Your task to perform on an android device: turn off data saver in the chrome app Image 0: 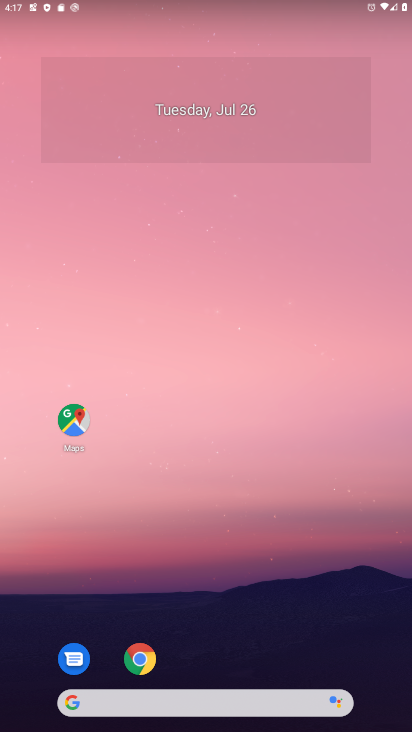
Step 0: press home button
Your task to perform on an android device: turn off data saver in the chrome app Image 1: 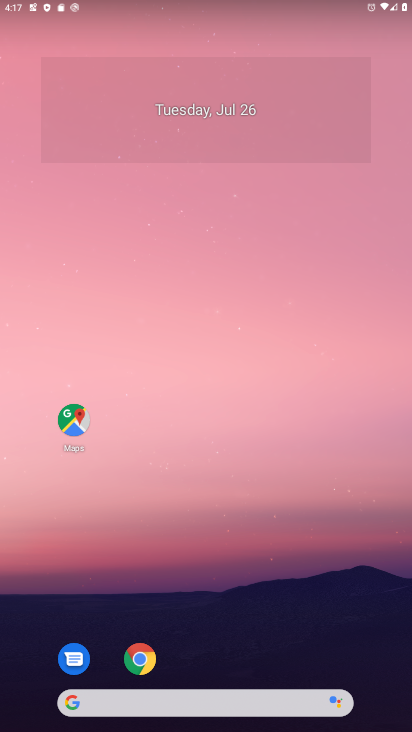
Step 1: drag from (251, 673) to (264, 356)
Your task to perform on an android device: turn off data saver in the chrome app Image 2: 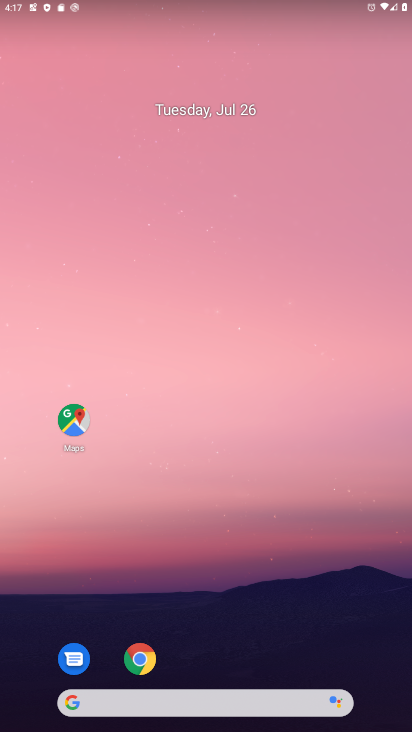
Step 2: drag from (277, 586) to (280, 156)
Your task to perform on an android device: turn off data saver in the chrome app Image 3: 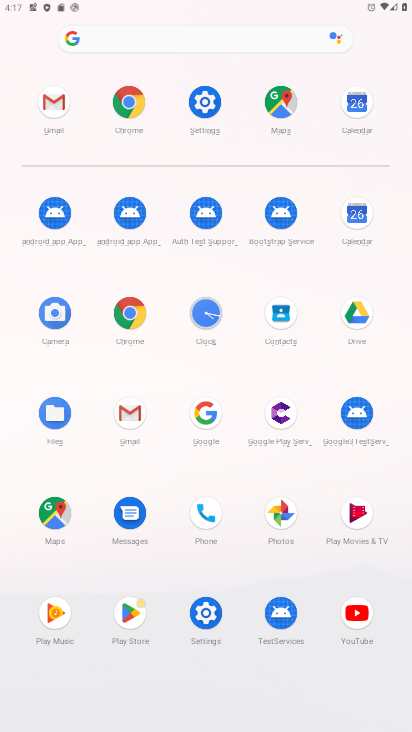
Step 3: click (131, 97)
Your task to perform on an android device: turn off data saver in the chrome app Image 4: 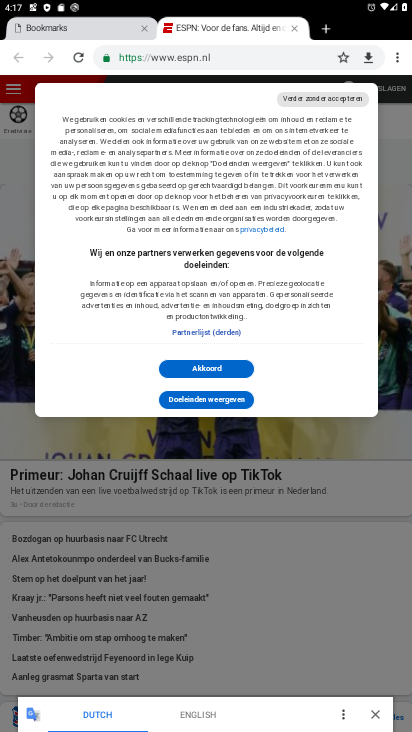
Step 4: drag from (401, 59) to (279, 424)
Your task to perform on an android device: turn off data saver in the chrome app Image 5: 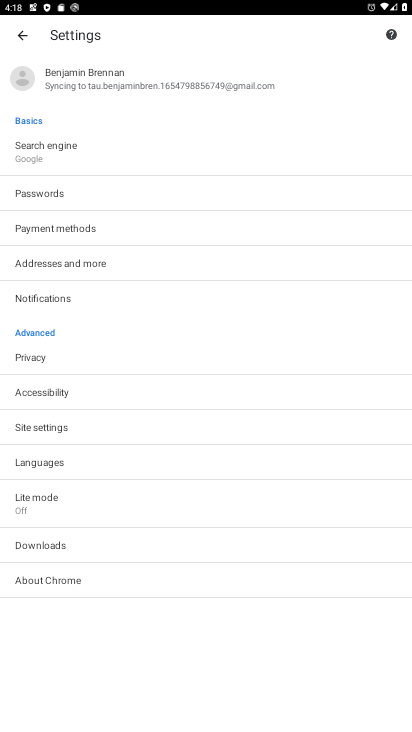
Step 5: click (44, 500)
Your task to perform on an android device: turn off data saver in the chrome app Image 6: 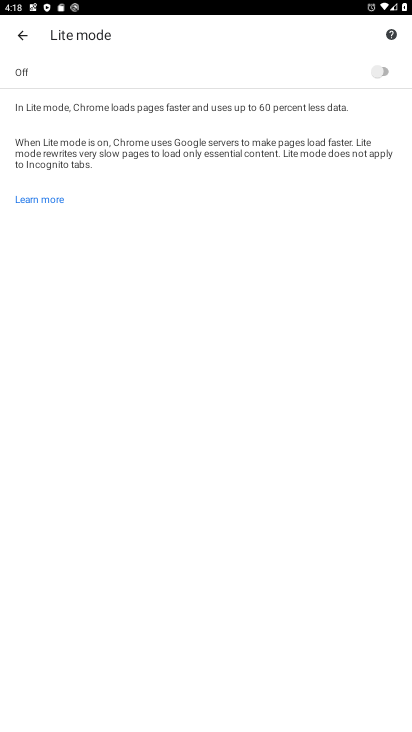
Step 6: task complete